Your task to perform on an android device: Go to internet settings Image 0: 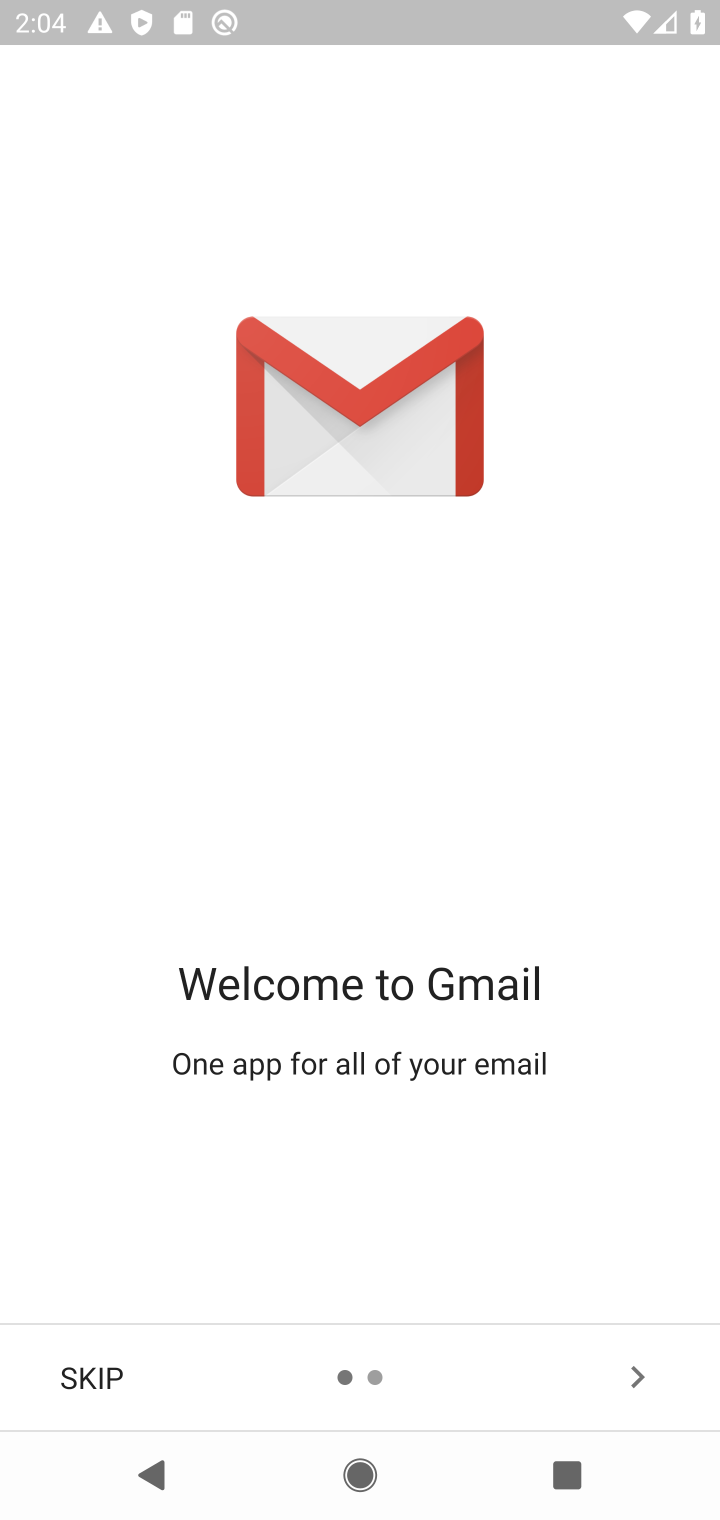
Step 0: press home button
Your task to perform on an android device: Go to internet settings Image 1: 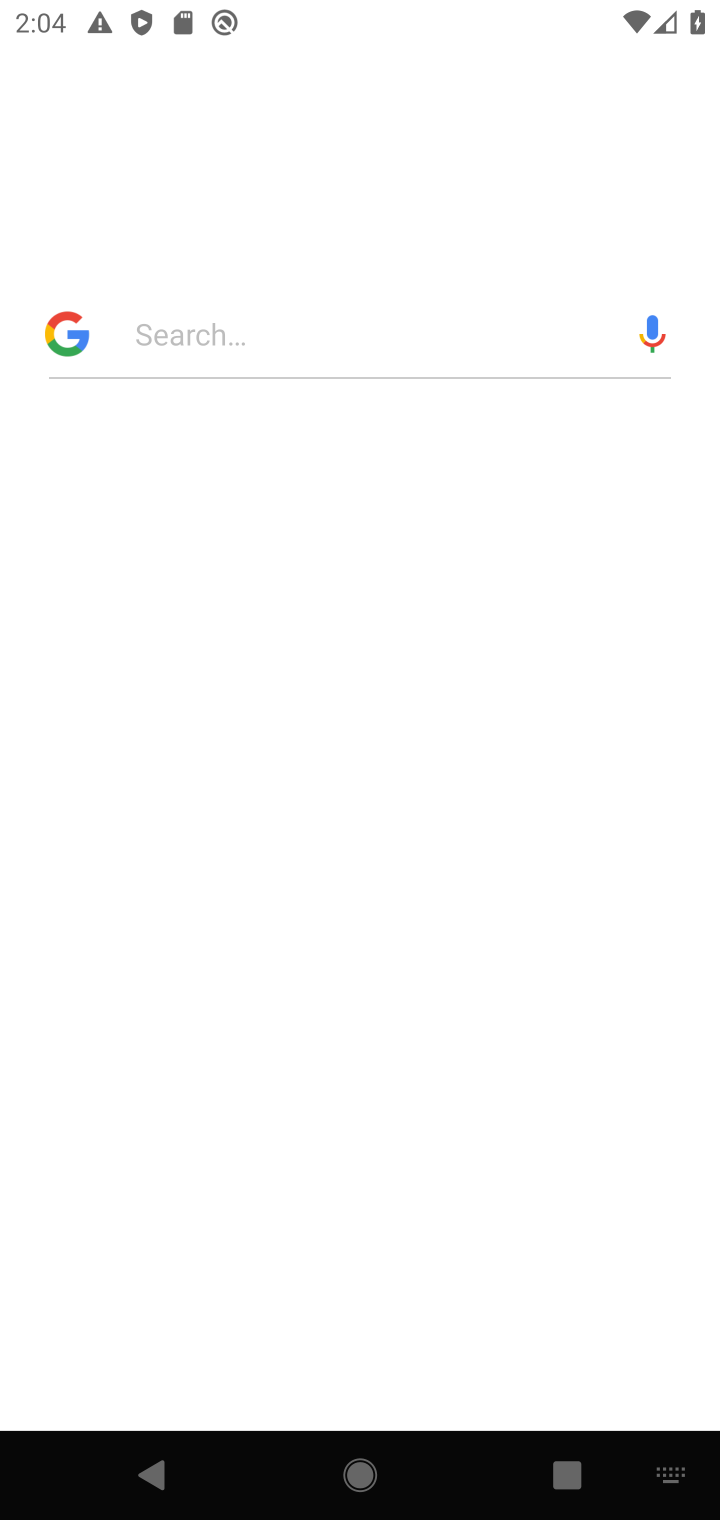
Step 1: press home button
Your task to perform on an android device: Go to internet settings Image 2: 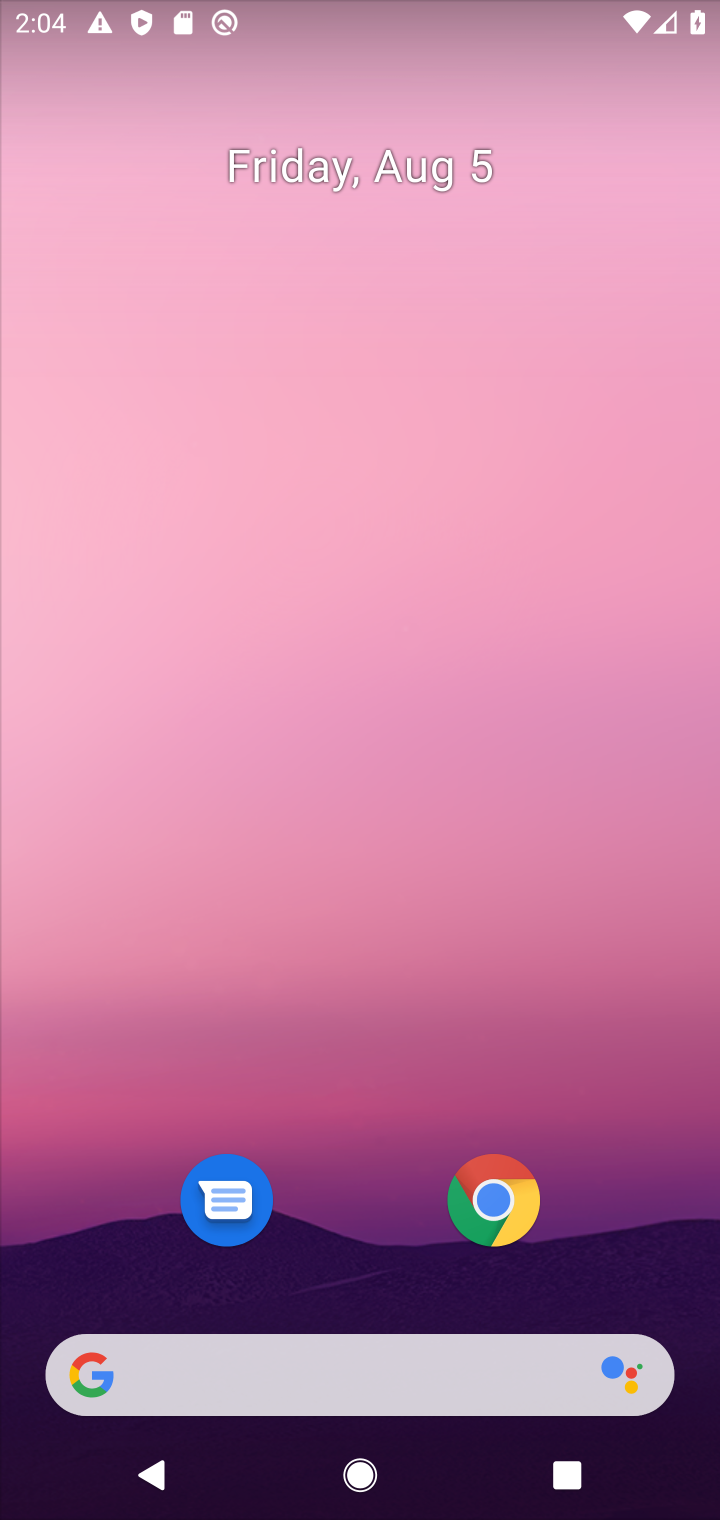
Step 2: drag from (396, 1190) to (291, 327)
Your task to perform on an android device: Go to internet settings Image 3: 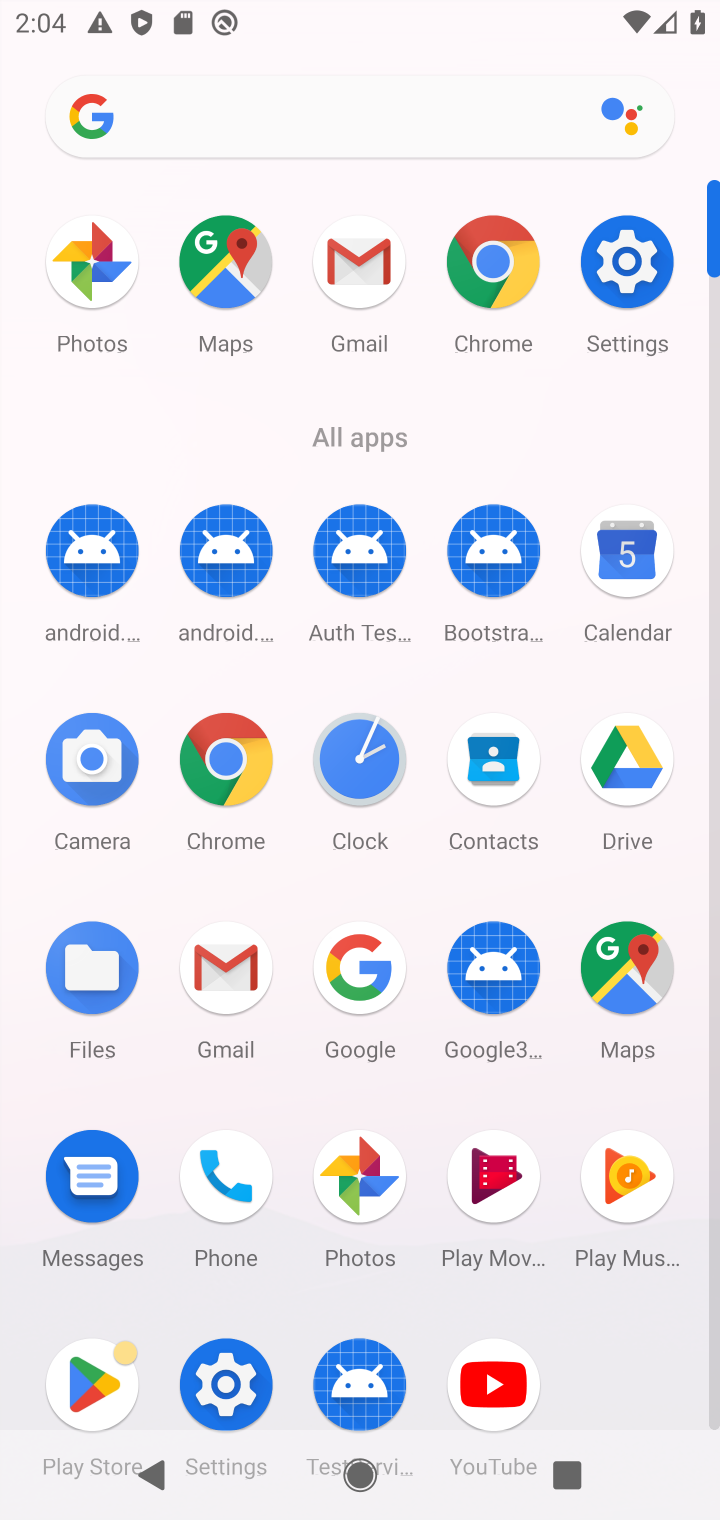
Step 3: click (607, 275)
Your task to perform on an android device: Go to internet settings Image 4: 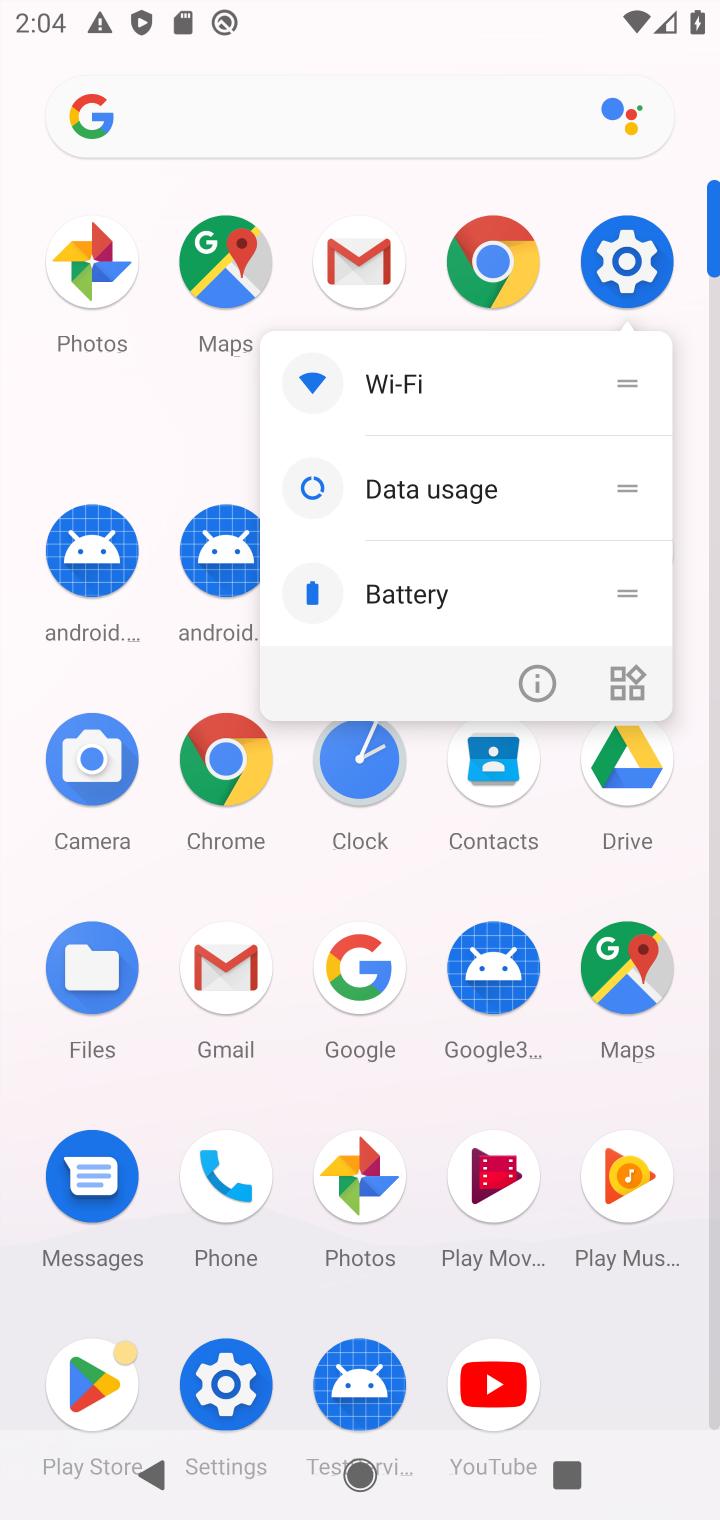
Step 4: click (607, 275)
Your task to perform on an android device: Go to internet settings Image 5: 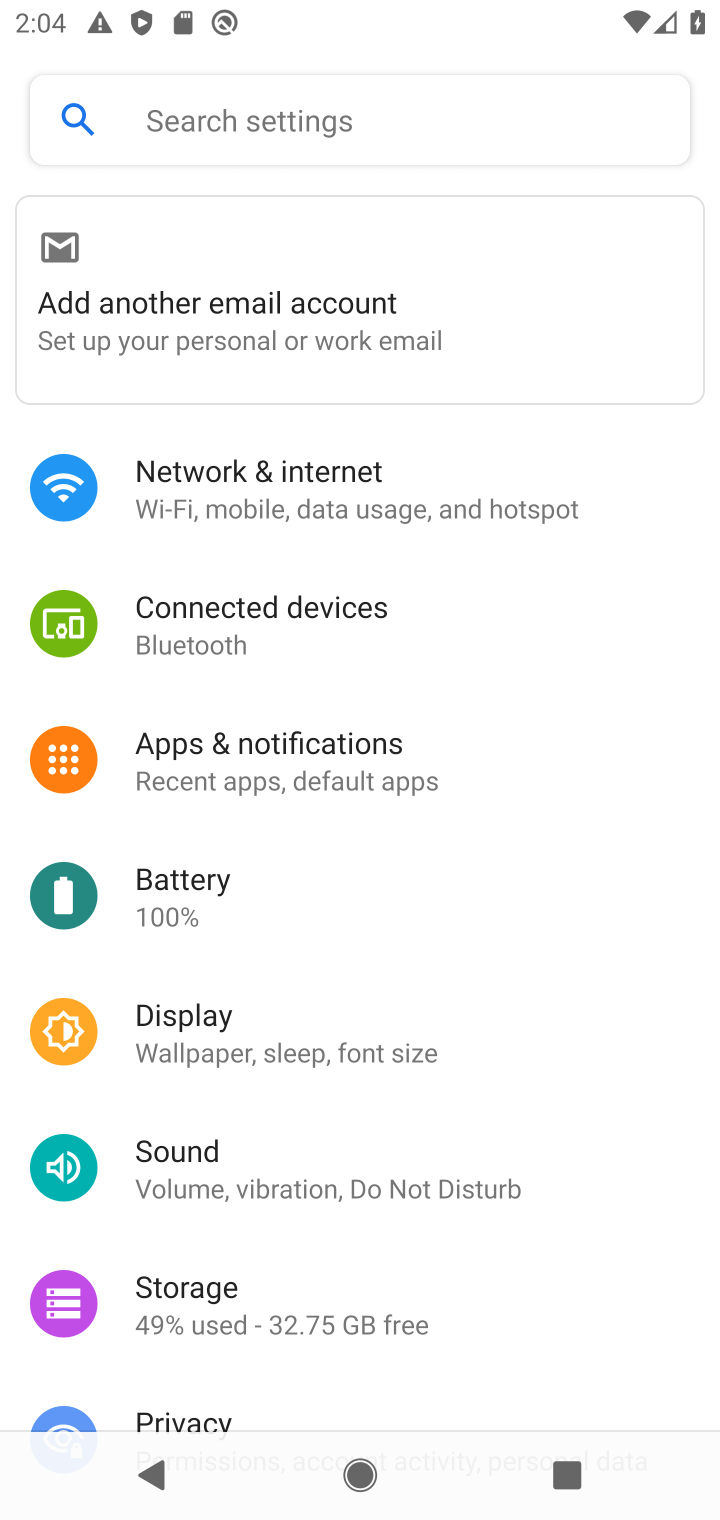
Step 5: click (310, 531)
Your task to perform on an android device: Go to internet settings Image 6: 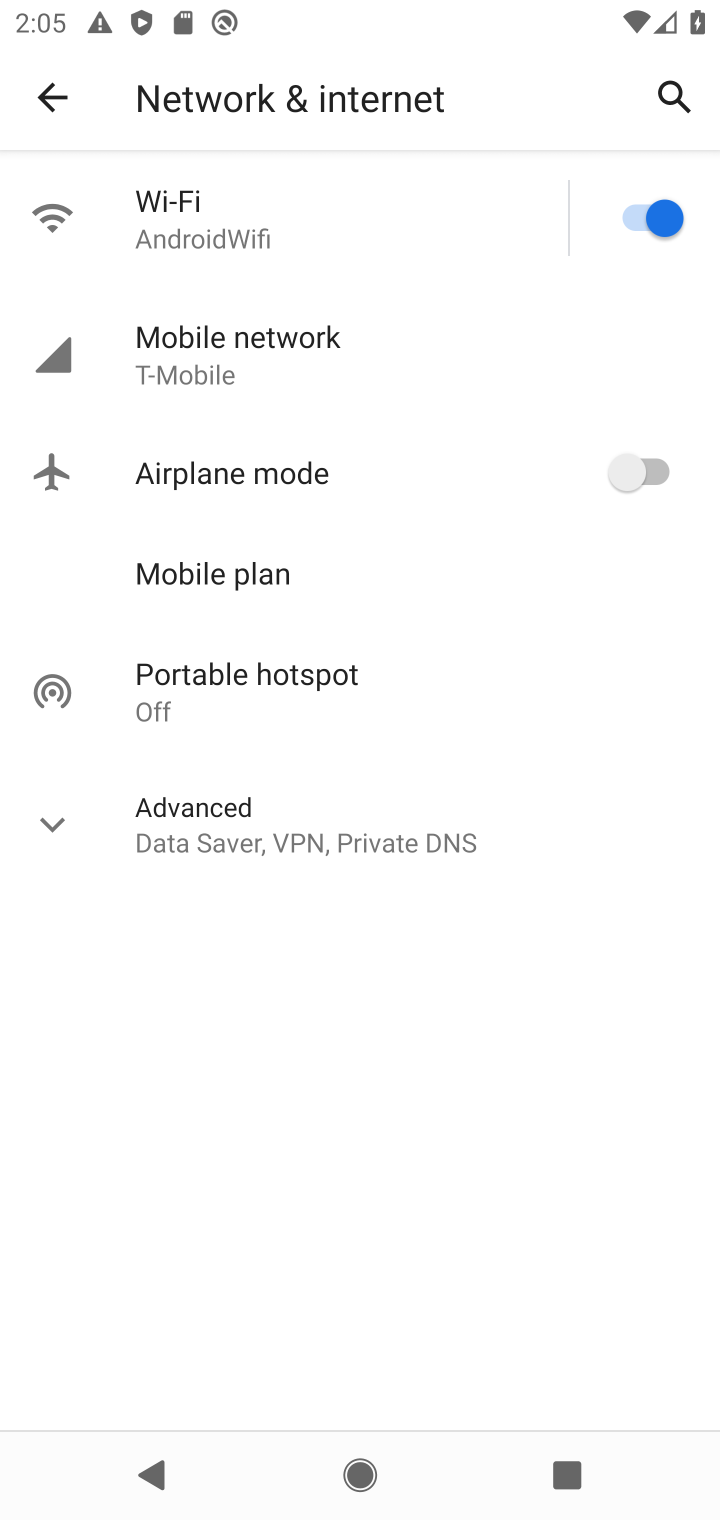
Step 6: task complete